Your task to perform on an android device: toggle wifi Image 0: 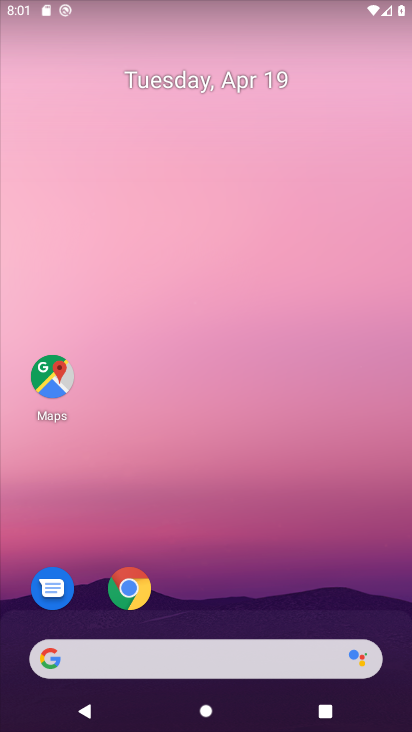
Step 0: drag from (329, 548) to (302, 111)
Your task to perform on an android device: toggle wifi Image 1: 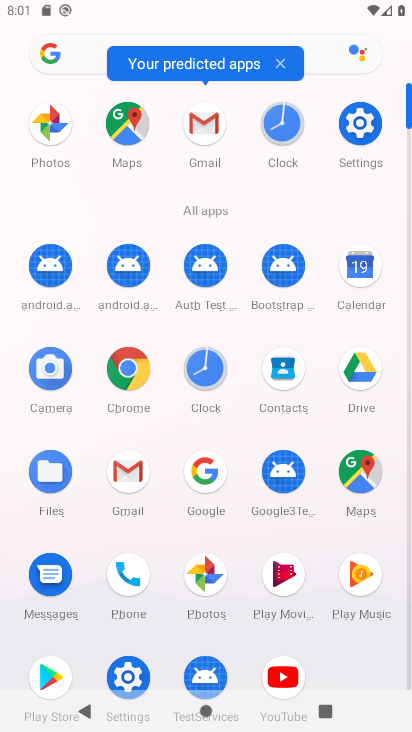
Step 1: click (372, 145)
Your task to perform on an android device: toggle wifi Image 2: 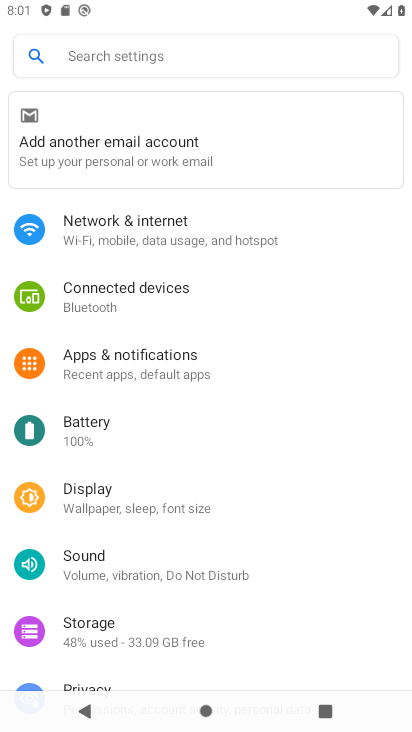
Step 2: click (250, 237)
Your task to perform on an android device: toggle wifi Image 3: 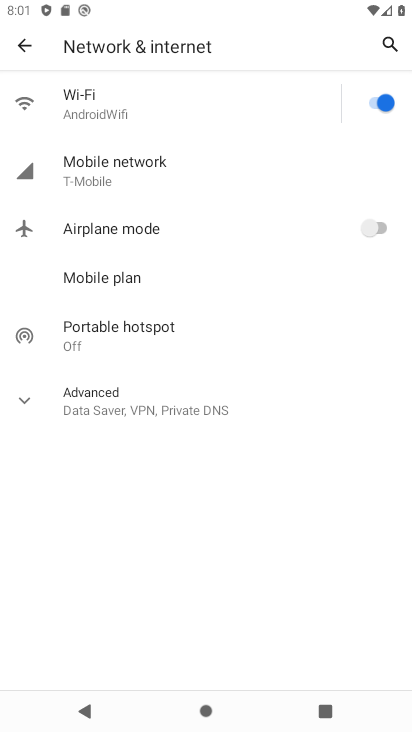
Step 3: click (364, 117)
Your task to perform on an android device: toggle wifi Image 4: 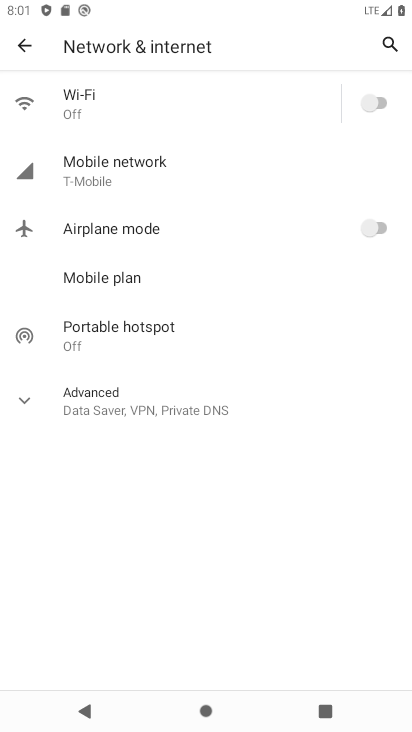
Step 4: task complete